Your task to perform on an android device: open chrome privacy settings Image 0: 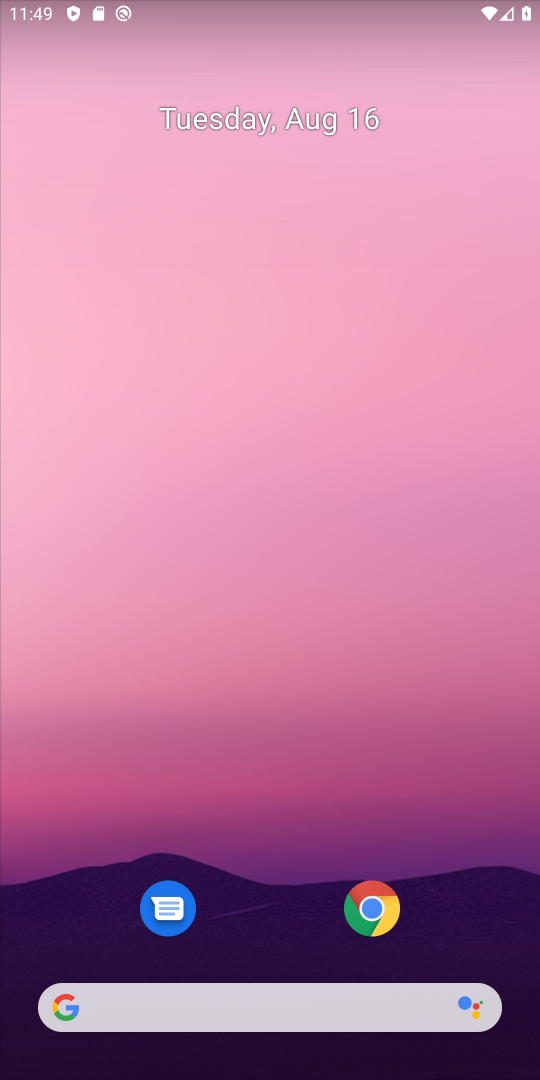
Step 0: click (396, 888)
Your task to perform on an android device: open chrome privacy settings Image 1: 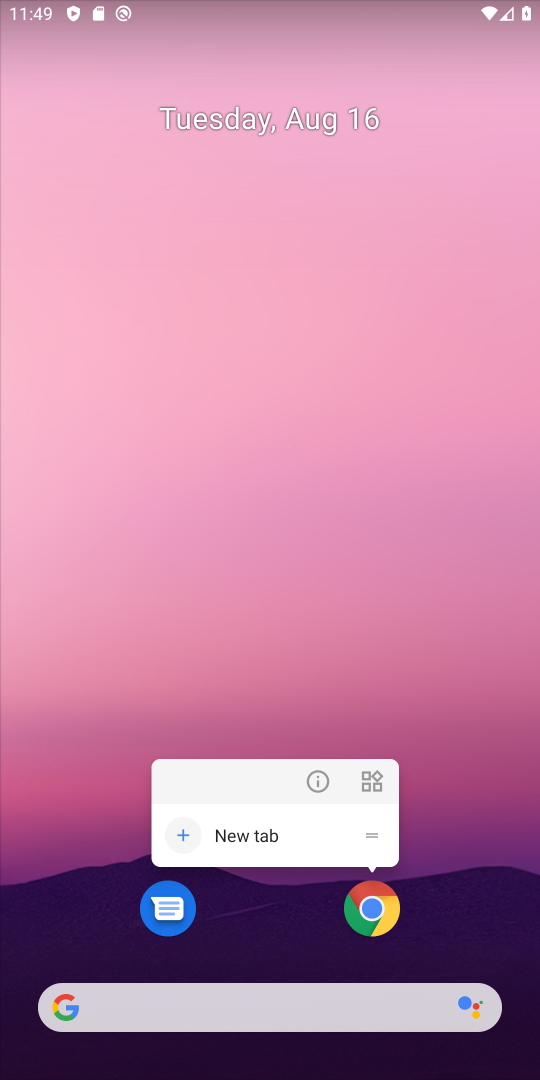
Step 1: click (379, 891)
Your task to perform on an android device: open chrome privacy settings Image 2: 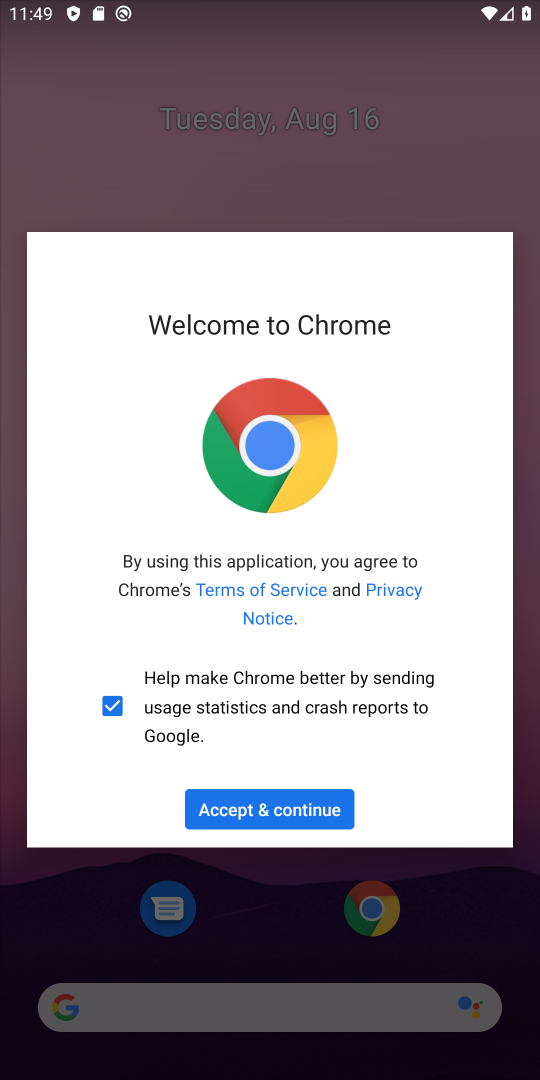
Step 2: click (300, 799)
Your task to perform on an android device: open chrome privacy settings Image 3: 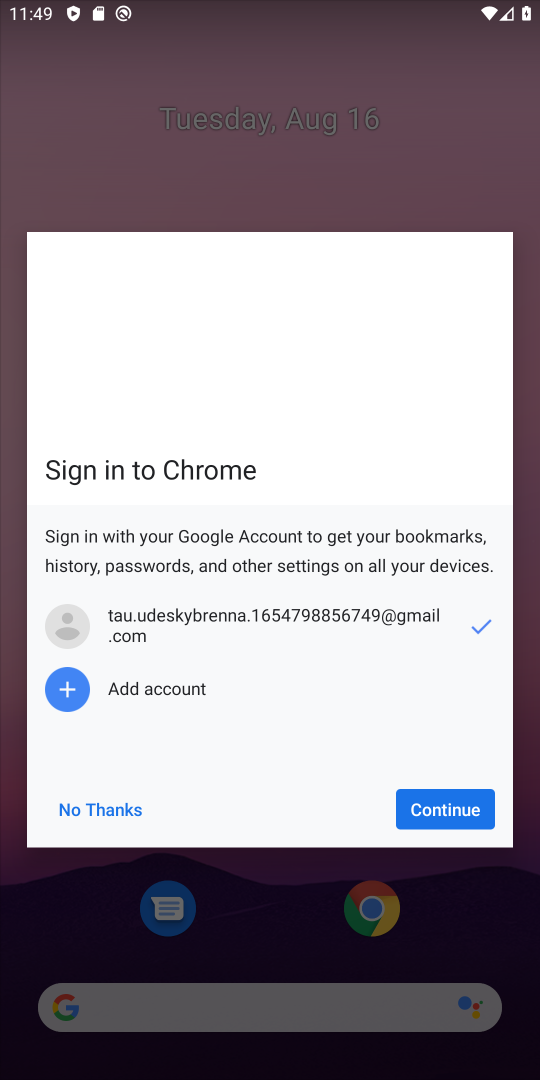
Step 3: click (416, 817)
Your task to perform on an android device: open chrome privacy settings Image 4: 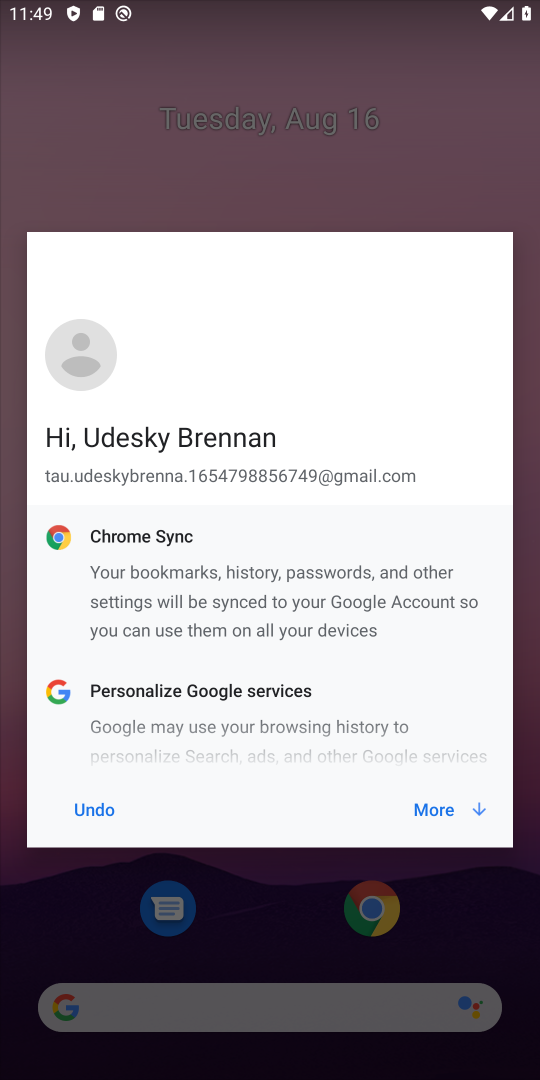
Step 4: click (425, 817)
Your task to perform on an android device: open chrome privacy settings Image 5: 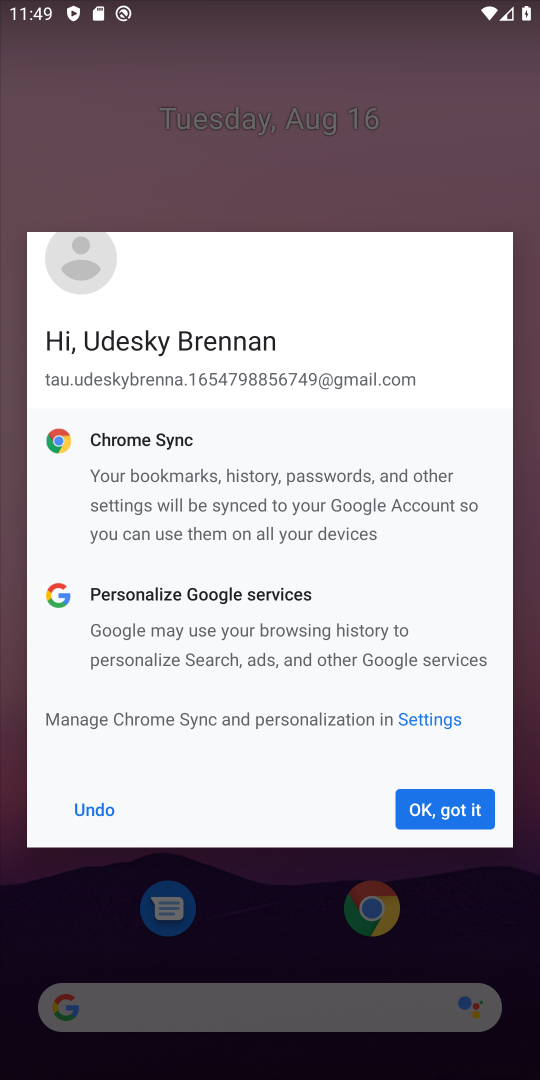
Step 5: click (470, 800)
Your task to perform on an android device: open chrome privacy settings Image 6: 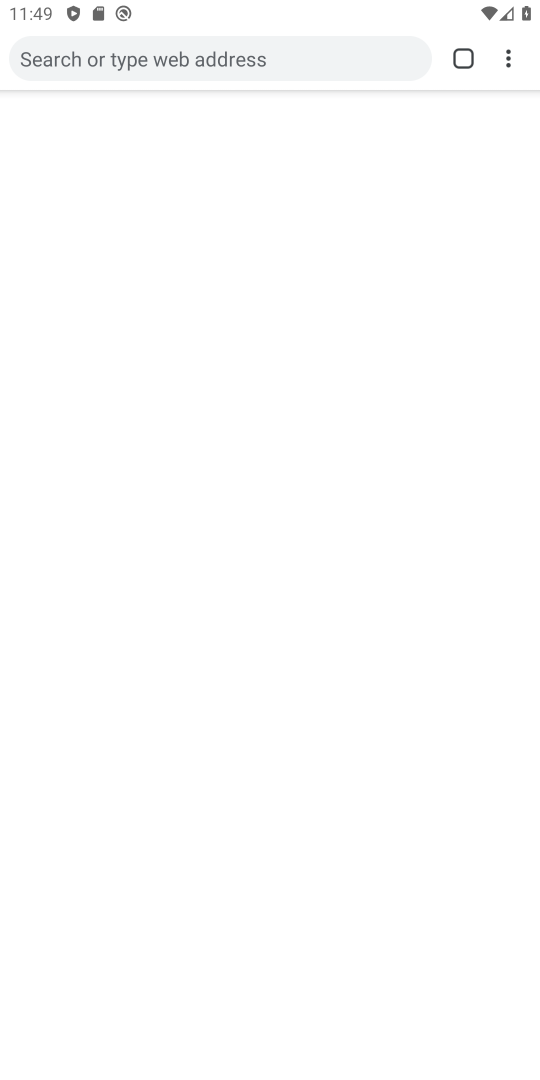
Step 6: click (470, 800)
Your task to perform on an android device: open chrome privacy settings Image 7: 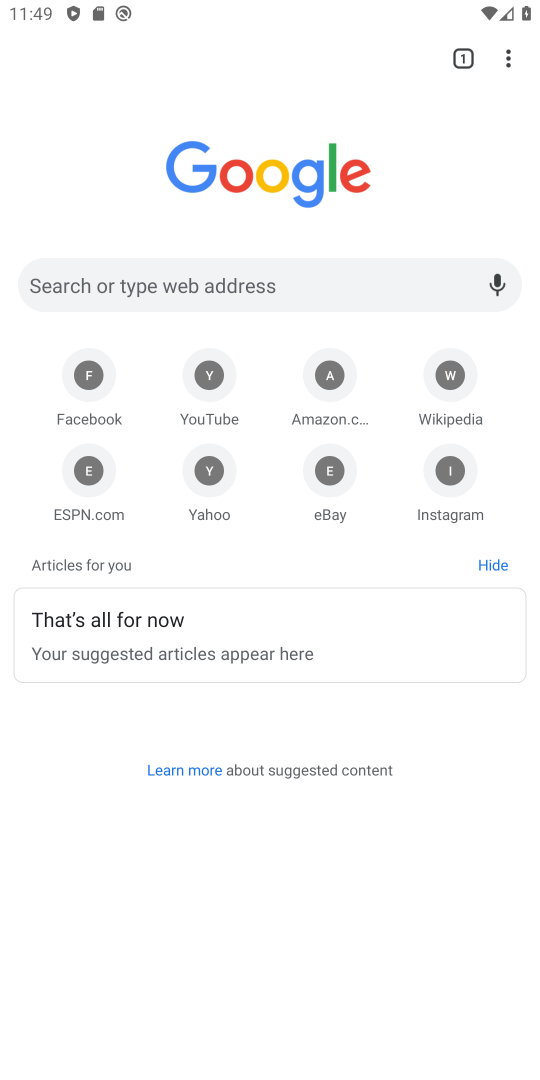
Step 7: click (505, 57)
Your task to perform on an android device: open chrome privacy settings Image 8: 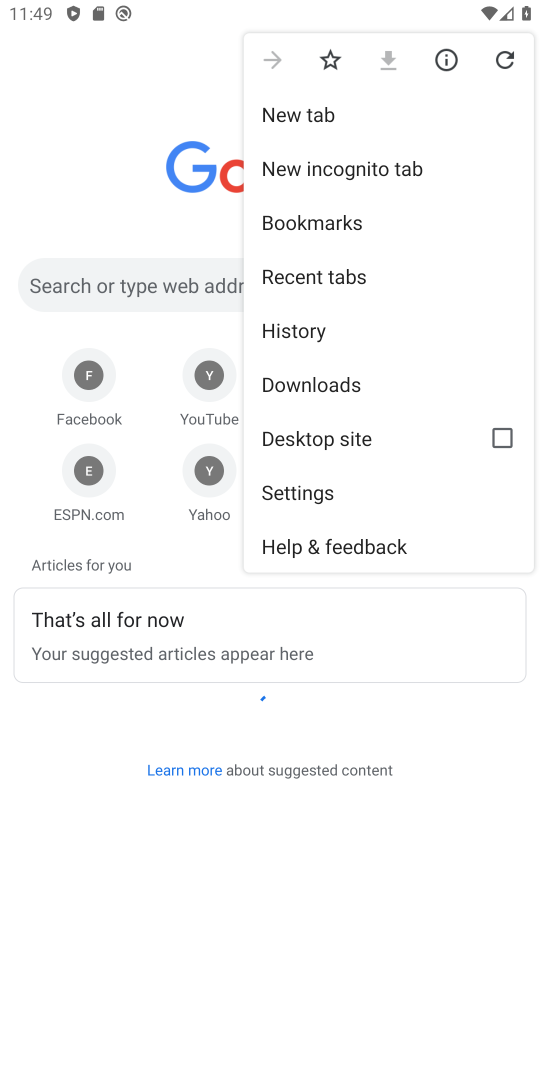
Step 8: click (304, 497)
Your task to perform on an android device: open chrome privacy settings Image 9: 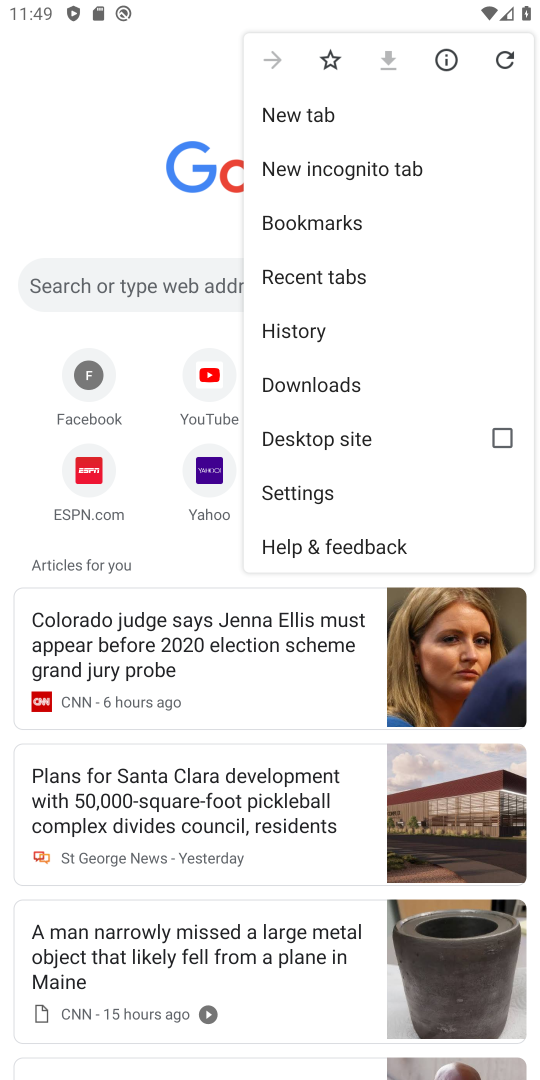
Step 9: click (306, 493)
Your task to perform on an android device: open chrome privacy settings Image 10: 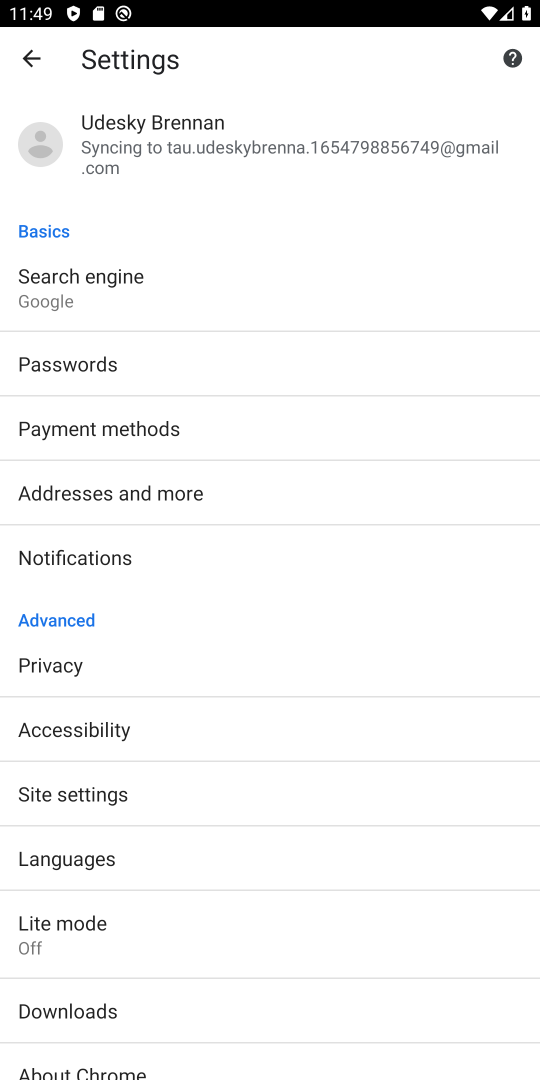
Step 10: click (121, 667)
Your task to perform on an android device: open chrome privacy settings Image 11: 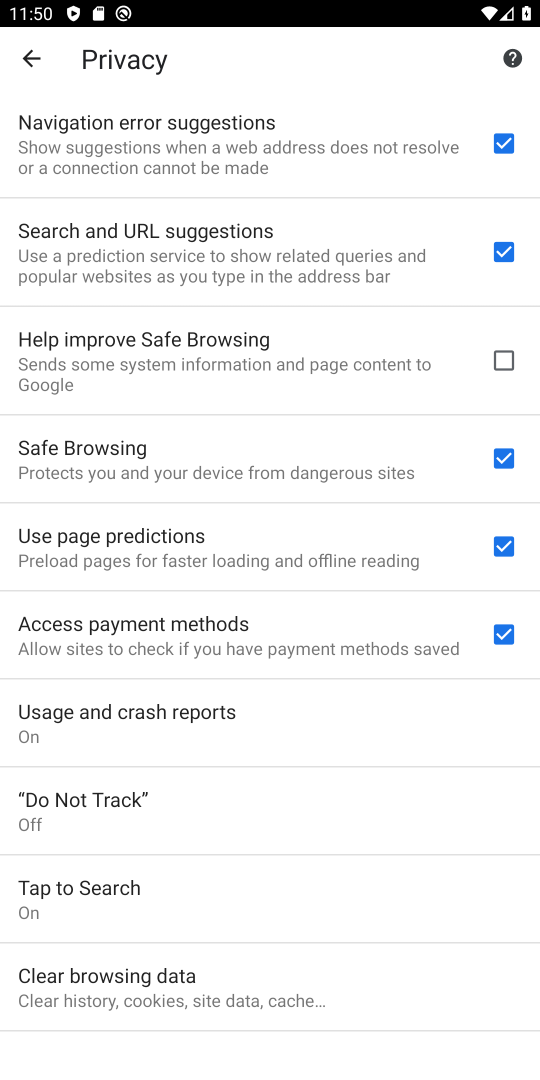
Step 11: task complete